Your task to perform on an android device: visit the assistant section in the google photos Image 0: 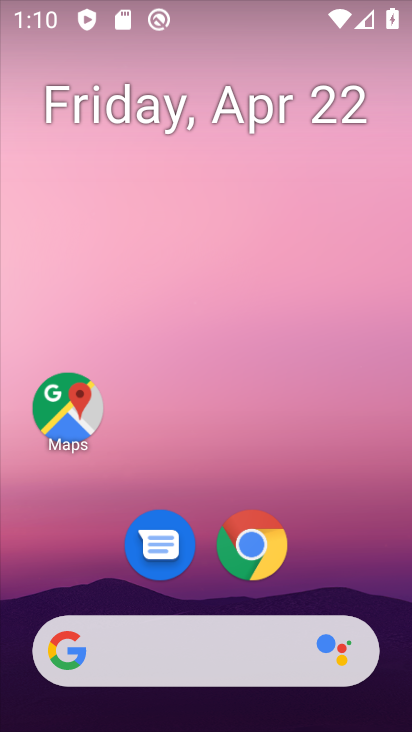
Step 0: drag from (151, 611) to (249, 68)
Your task to perform on an android device: visit the assistant section in the google photos Image 1: 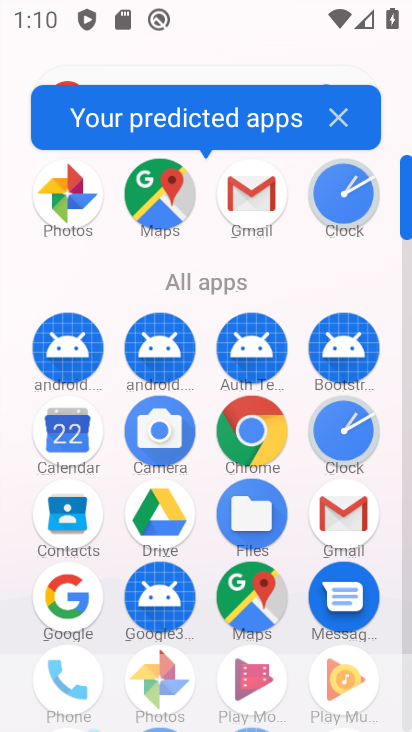
Step 1: drag from (247, 512) to (326, 212)
Your task to perform on an android device: visit the assistant section in the google photos Image 2: 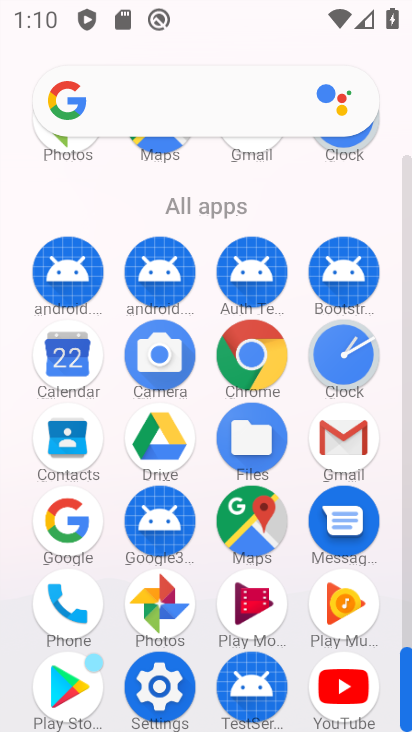
Step 2: click (174, 607)
Your task to perform on an android device: visit the assistant section in the google photos Image 3: 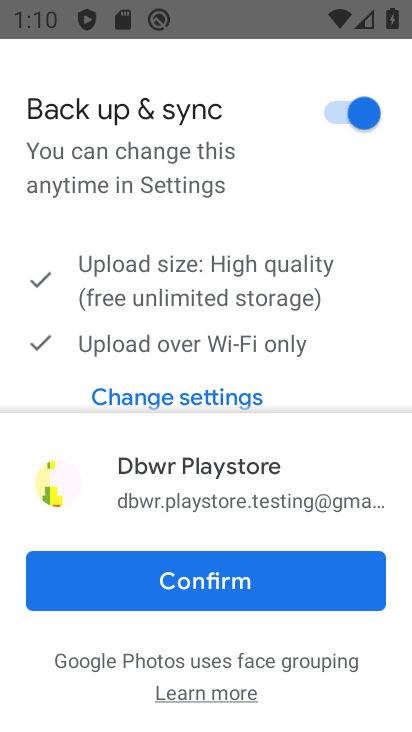
Step 3: click (221, 592)
Your task to perform on an android device: visit the assistant section in the google photos Image 4: 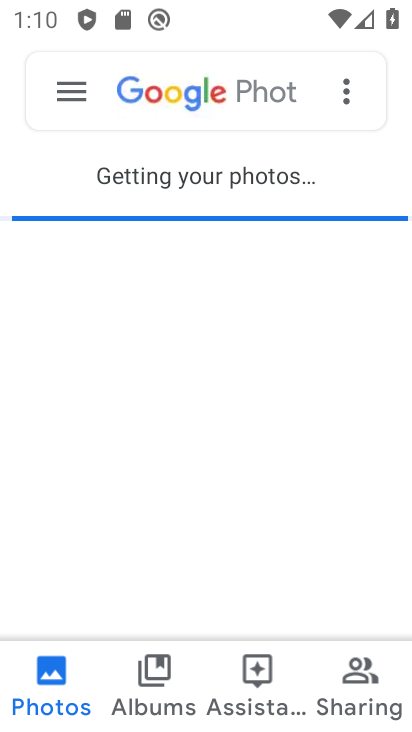
Step 4: click (249, 668)
Your task to perform on an android device: visit the assistant section in the google photos Image 5: 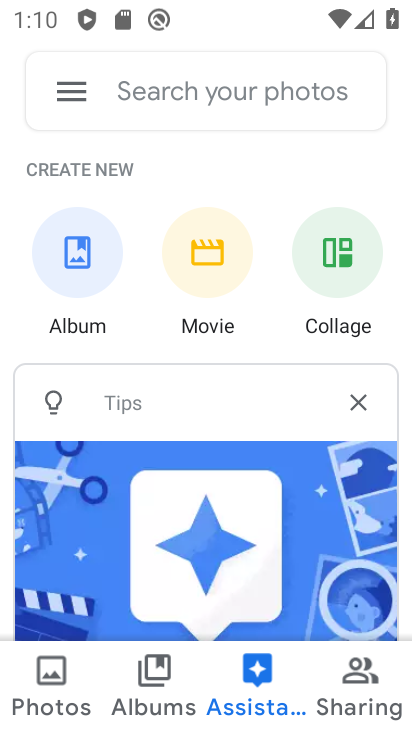
Step 5: task complete